Your task to perform on an android device: open app "DuckDuckGo Privacy Browser" Image 0: 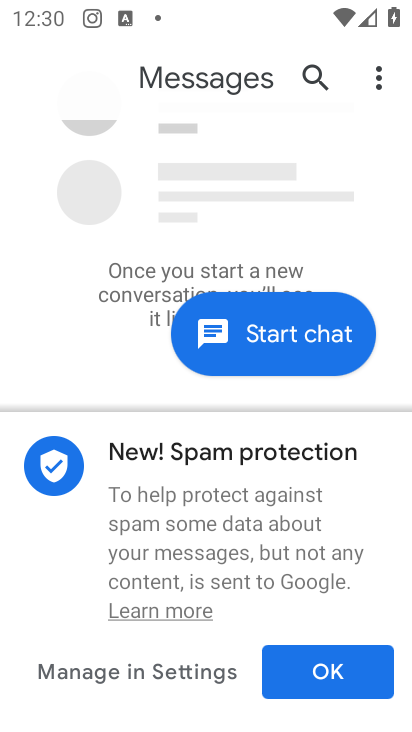
Step 0: press back button
Your task to perform on an android device: open app "DuckDuckGo Privacy Browser" Image 1: 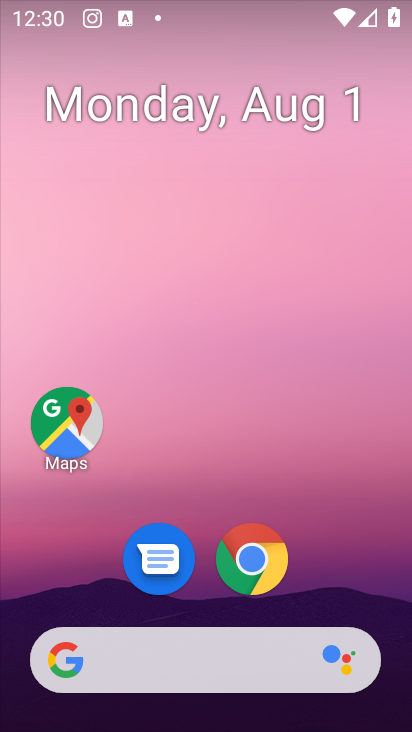
Step 1: drag from (82, 560) to (205, 59)
Your task to perform on an android device: open app "DuckDuckGo Privacy Browser" Image 2: 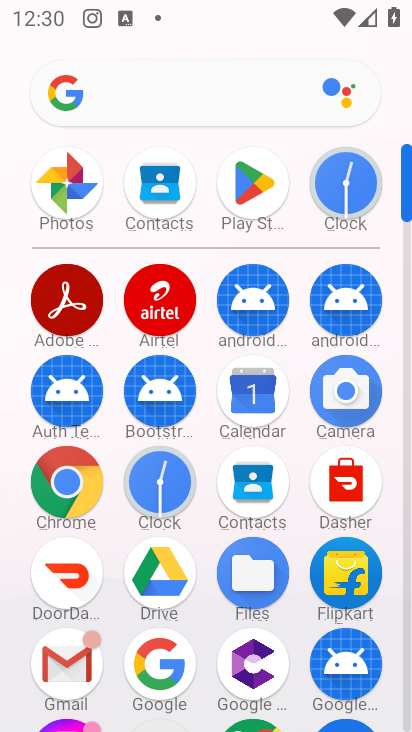
Step 2: click (250, 190)
Your task to perform on an android device: open app "DuckDuckGo Privacy Browser" Image 3: 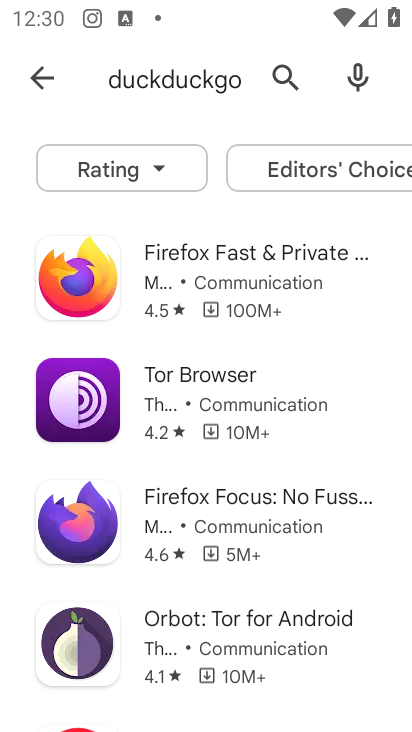
Step 3: click (288, 77)
Your task to perform on an android device: open app "DuckDuckGo Privacy Browser" Image 4: 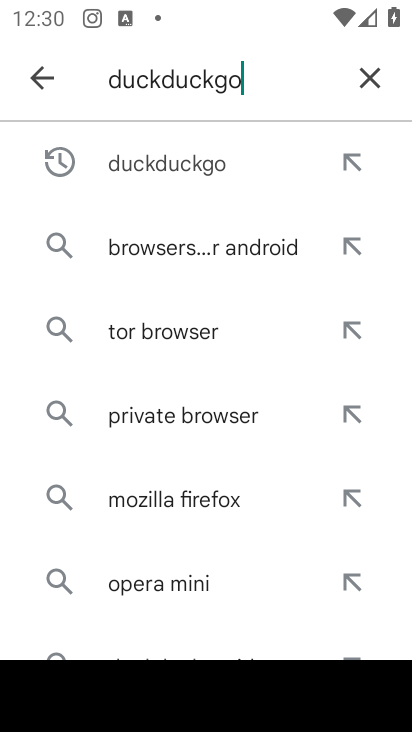
Step 4: click (148, 249)
Your task to perform on an android device: open app "DuckDuckGo Privacy Browser" Image 5: 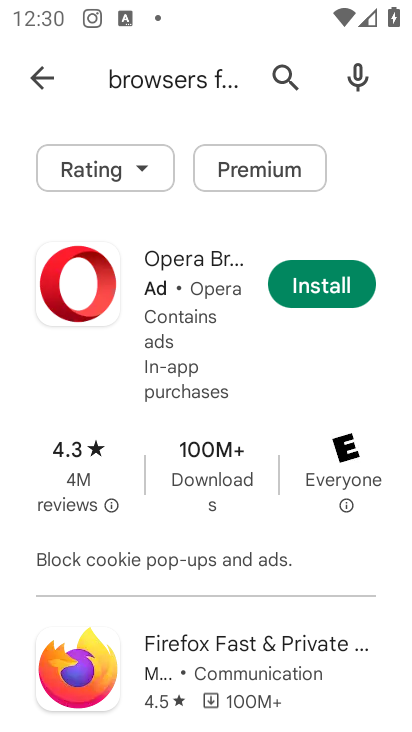
Step 5: task complete